Your task to perform on an android device: set the stopwatch Image 0: 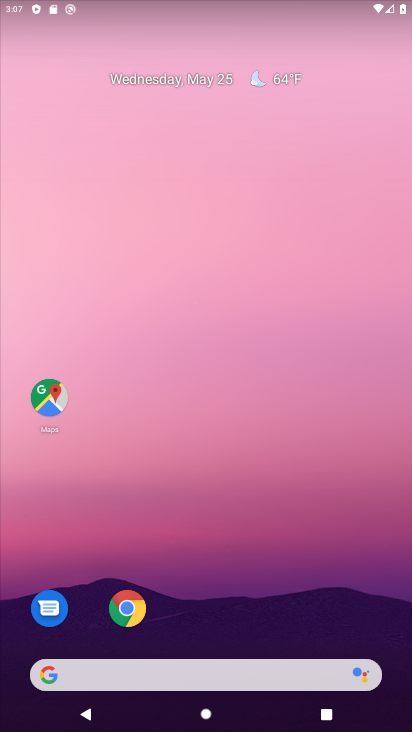
Step 0: drag from (148, 565) to (157, 118)
Your task to perform on an android device: set the stopwatch Image 1: 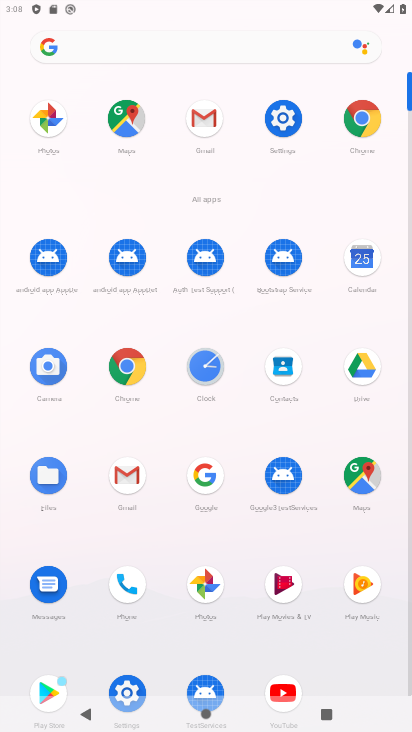
Step 1: click (194, 369)
Your task to perform on an android device: set the stopwatch Image 2: 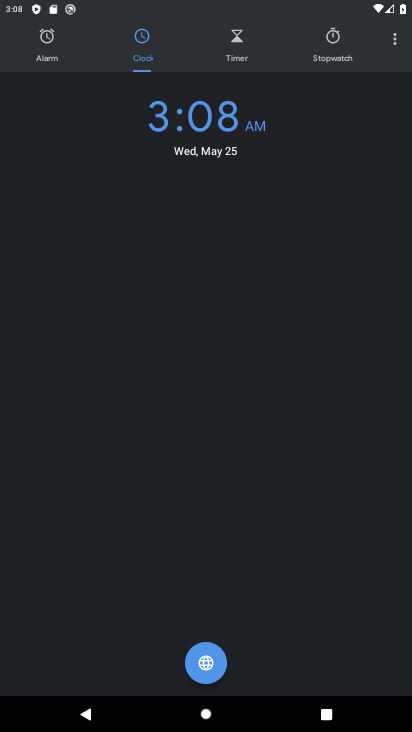
Step 2: click (323, 38)
Your task to perform on an android device: set the stopwatch Image 3: 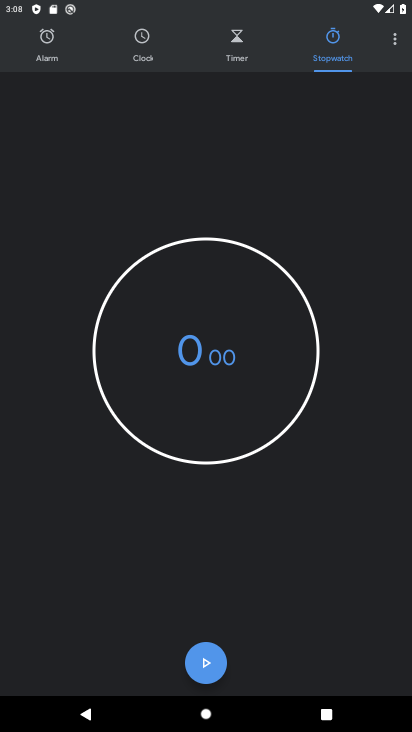
Step 3: click (199, 678)
Your task to perform on an android device: set the stopwatch Image 4: 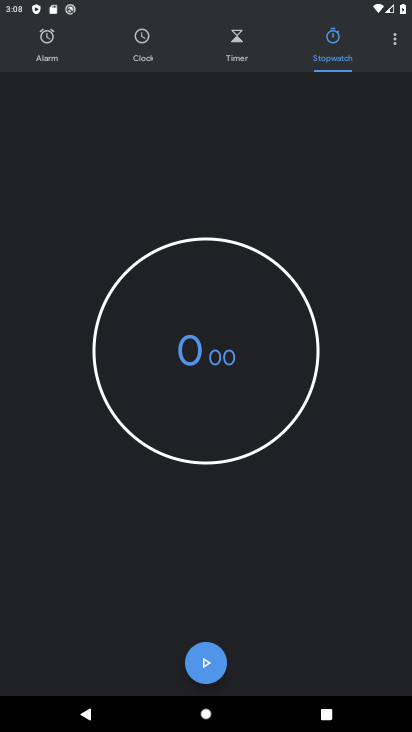
Step 4: click (199, 675)
Your task to perform on an android device: set the stopwatch Image 5: 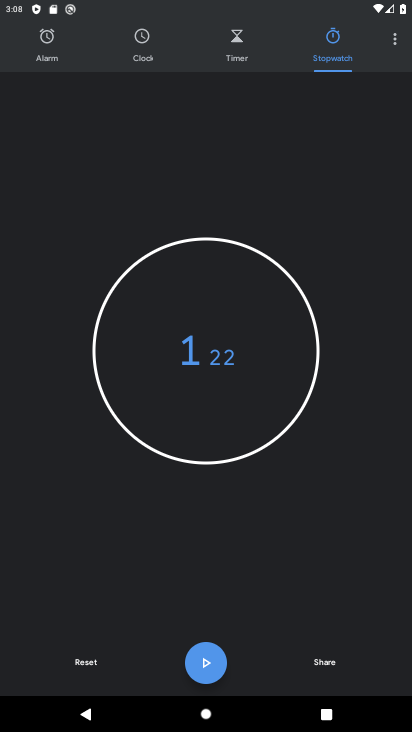
Step 5: click (199, 674)
Your task to perform on an android device: set the stopwatch Image 6: 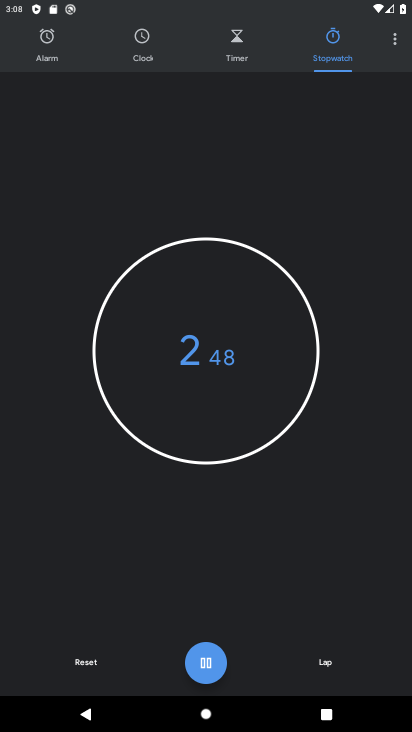
Step 6: task complete